Your task to perform on an android device: manage bookmarks in the chrome app Image 0: 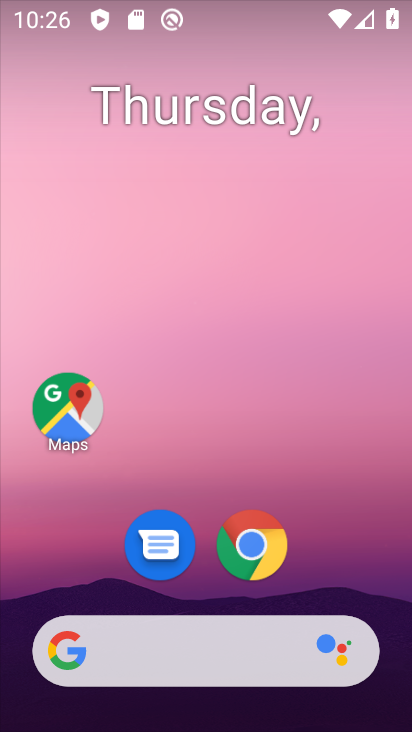
Step 0: click (253, 547)
Your task to perform on an android device: manage bookmarks in the chrome app Image 1: 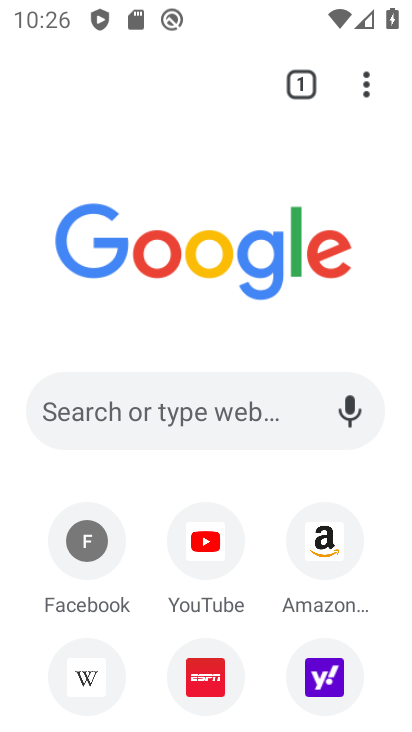
Step 1: click (367, 92)
Your task to perform on an android device: manage bookmarks in the chrome app Image 2: 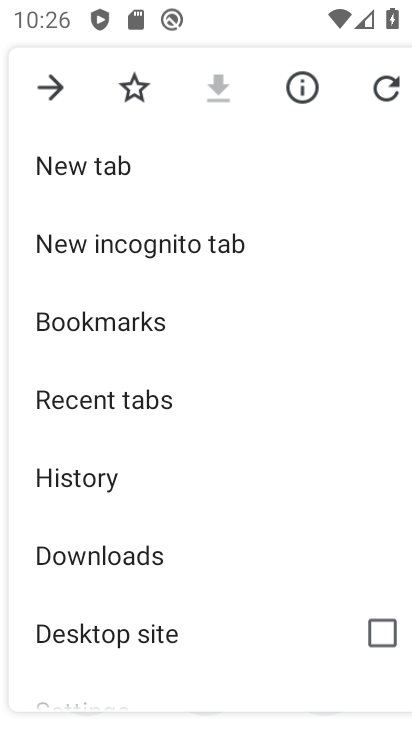
Step 2: drag from (157, 467) to (207, 391)
Your task to perform on an android device: manage bookmarks in the chrome app Image 3: 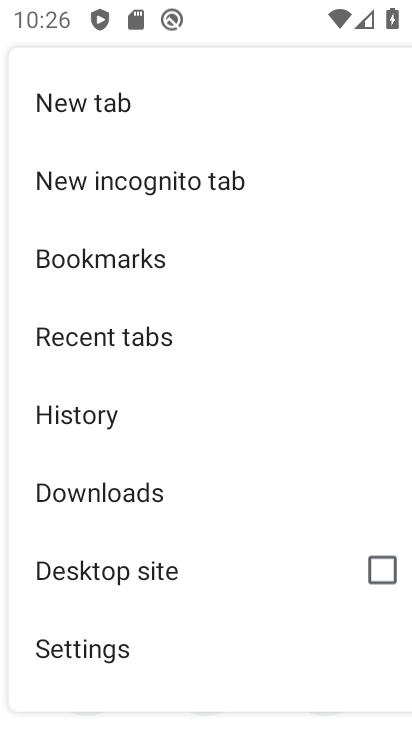
Step 3: drag from (90, 525) to (148, 448)
Your task to perform on an android device: manage bookmarks in the chrome app Image 4: 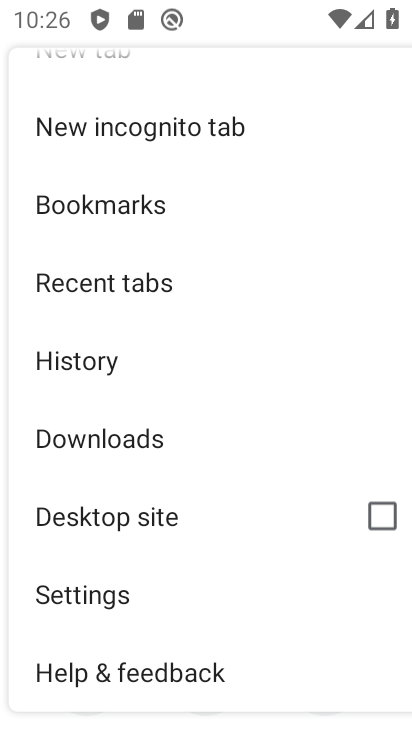
Step 4: click (76, 211)
Your task to perform on an android device: manage bookmarks in the chrome app Image 5: 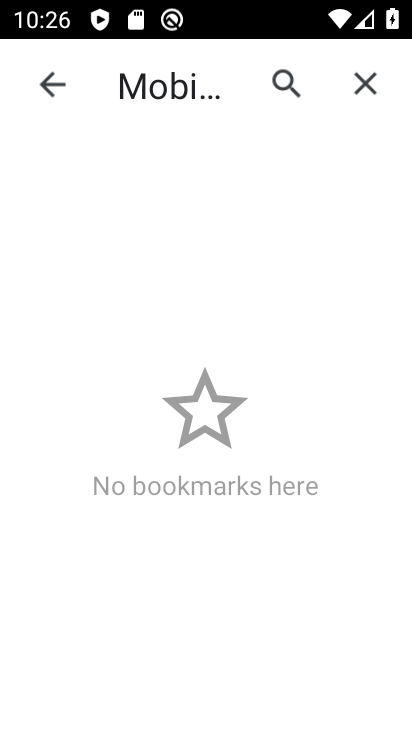
Step 5: task complete